Your task to perform on an android device: snooze an email in the gmail app Image 0: 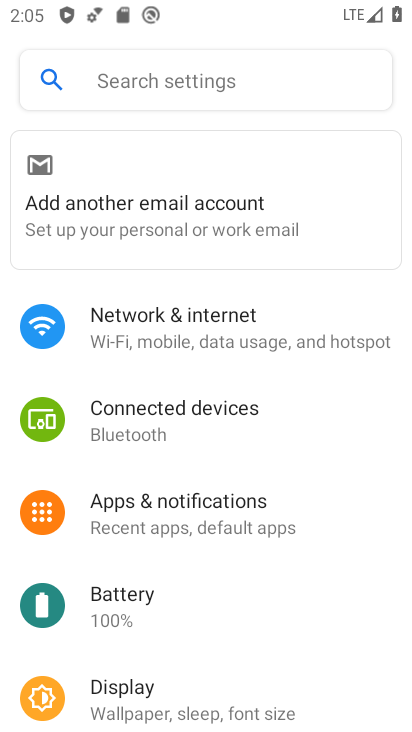
Step 0: press home button
Your task to perform on an android device: snooze an email in the gmail app Image 1: 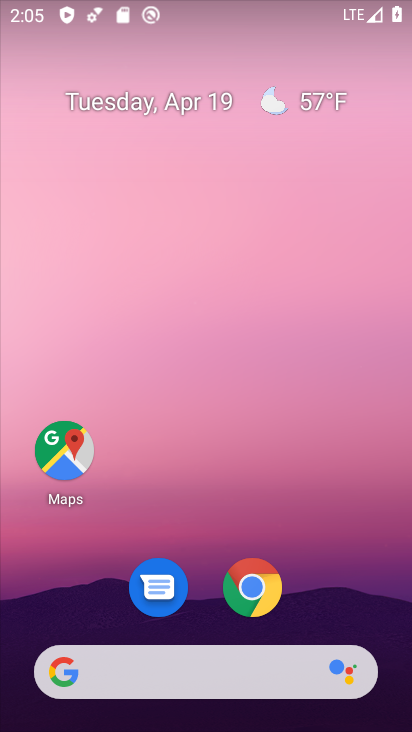
Step 1: drag from (231, 646) to (290, 232)
Your task to perform on an android device: snooze an email in the gmail app Image 2: 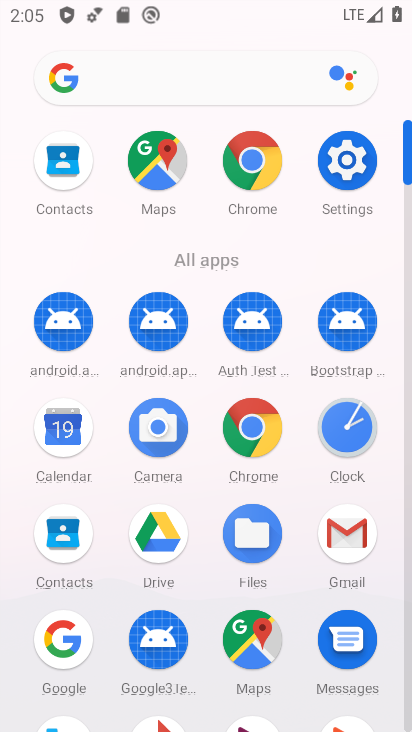
Step 2: click (340, 523)
Your task to perform on an android device: snooze an email in the gmail app Image 3: 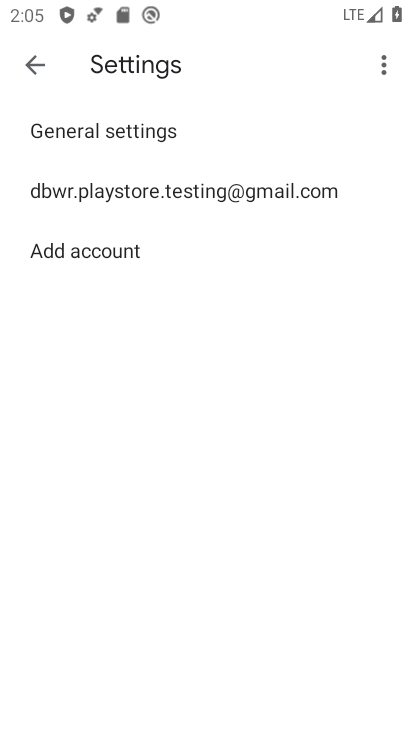
Step 3: click (119, 191)
Your task to perform on an android device: snooze an email in the gmail app Image 4: 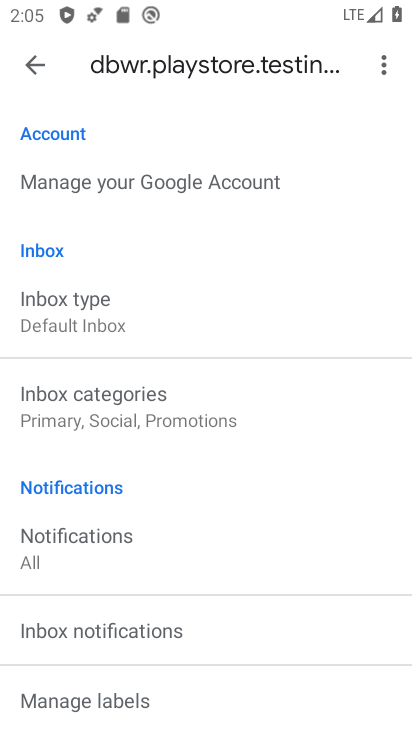
Step 4: click (30, 69)
Your task to perform on an android device: snooze an email in the gmail app Image 5: 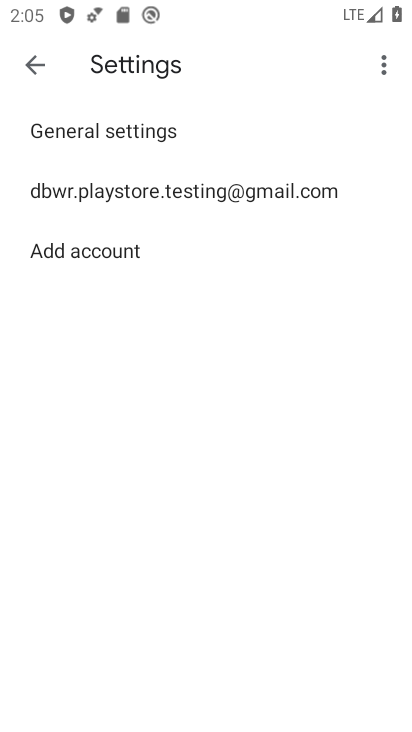
Step 5: click (30, 69)
Your task to perform on an android device: snooze an email in the gmail app Image 6: 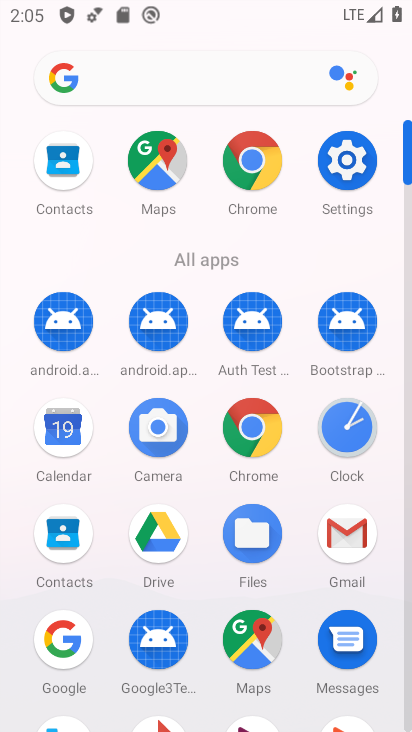
Step 6: click (340, 526)
Your task to perform on an android device: snooze an email in the gmail app Image 7: 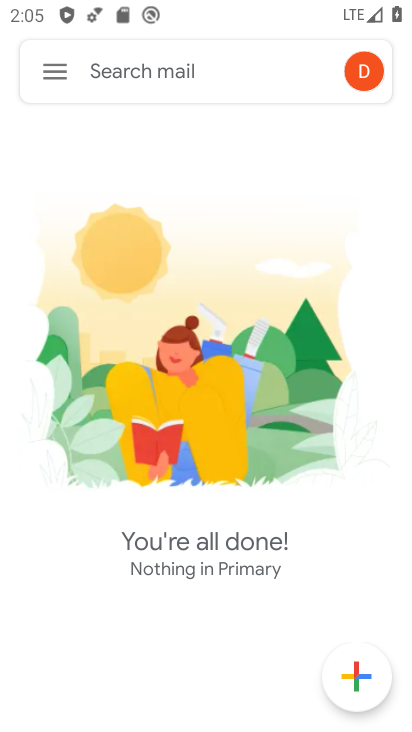
Step 7: click (60, 63)
Your task to perform on an android device: snooze an email in the gmail app Image 8: 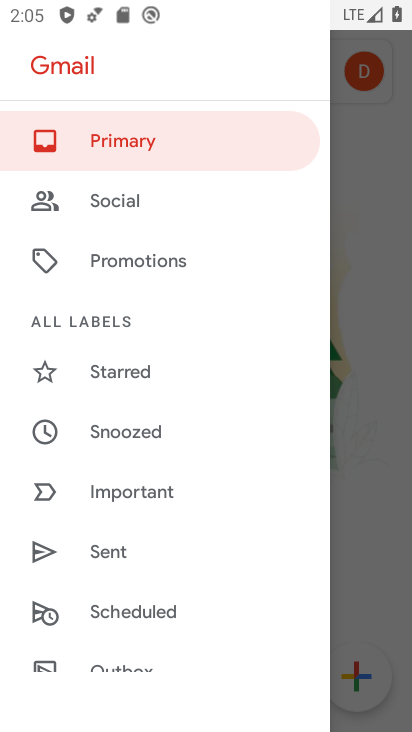
Step 8: drag from (191, 554) to (195, 210)
Your task to perform on an android device: snooze an email in the gmail app Image 9: 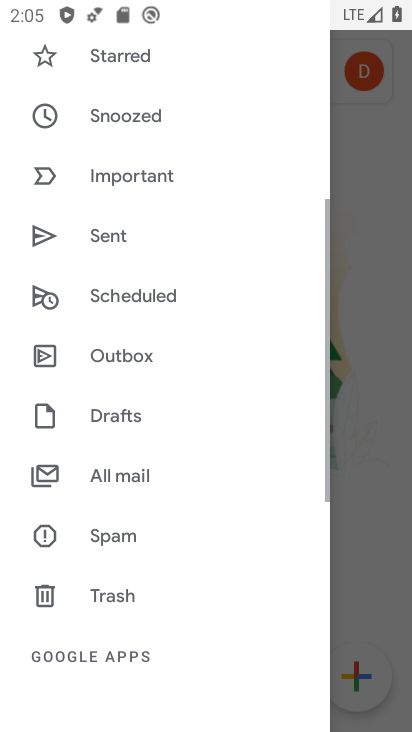
Step 9: drag from (194, 616) to (201, 286)
Your task to perform on an android device: snooze an email in the gmail app Image 10: 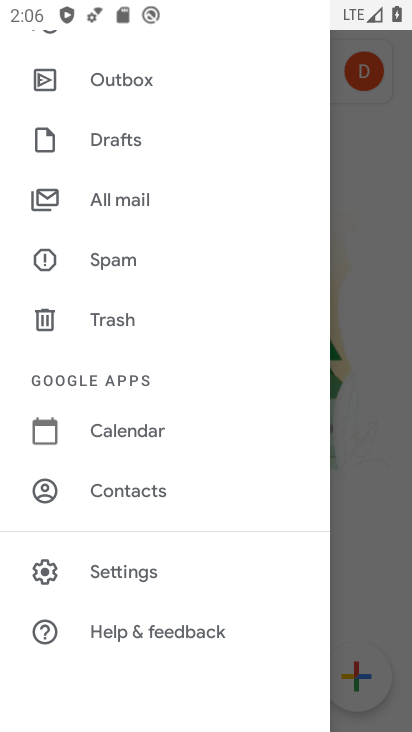
Step 10: click (107, 196)
Your task to perform on an android device: snooze an email in the gmail app Image 11: 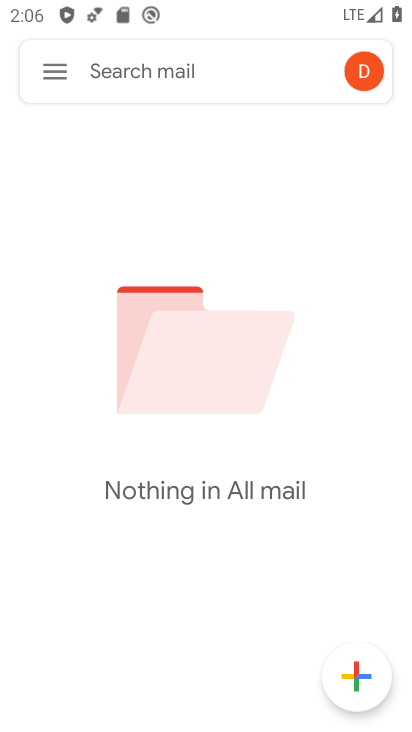
Step 11: click (48, 61)
Your task to perform on an android device: snooze an email in the gmail app Image 12: 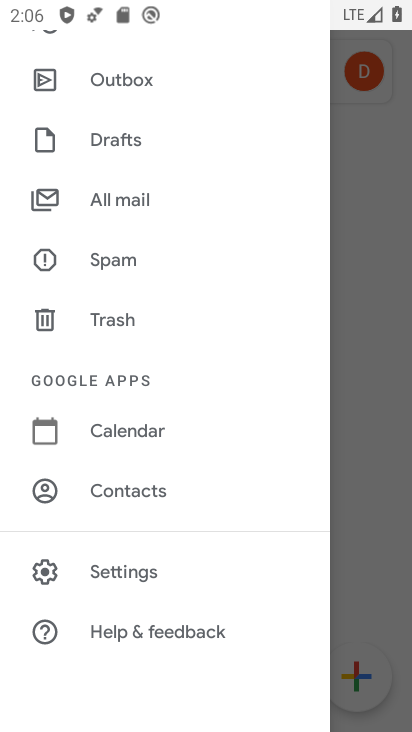
Step 12: click (125, 206)
Your task to perform on an android device: snooze an email in the gmail app Image 13: 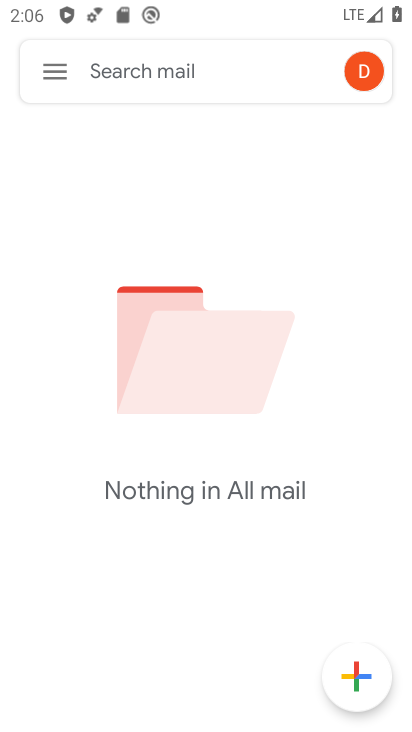
Step 13: task complete